Your task to perform on an android device: turn on location history Image 0: 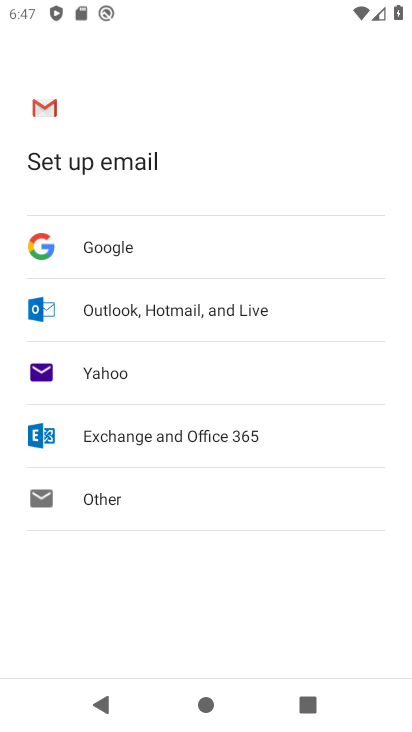
Step 0: press home button
Your task to perform on an android device: turn on location history Image 1: 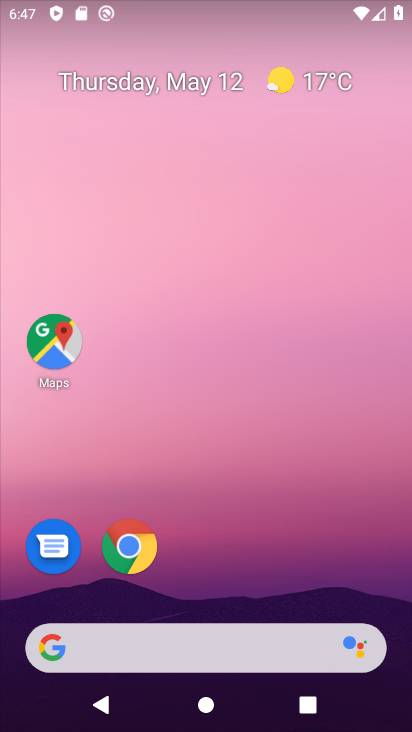
Step 1: click (50, 334)
Your task to perform on an android device: turn on location history Image 2: 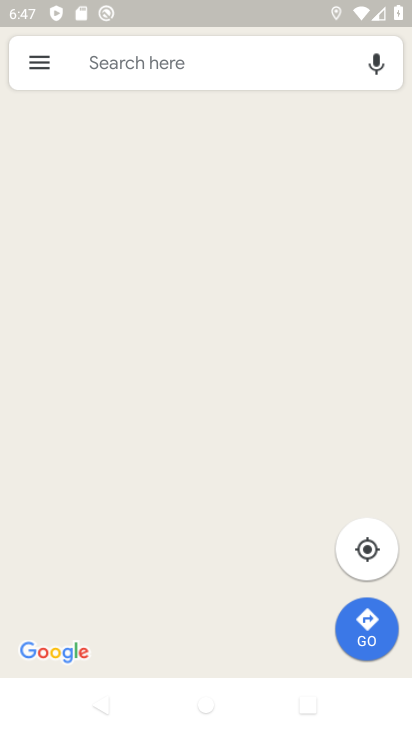
Step 2: click (32, 57)
Your task to perform on an android device: turn on location history Image 3: 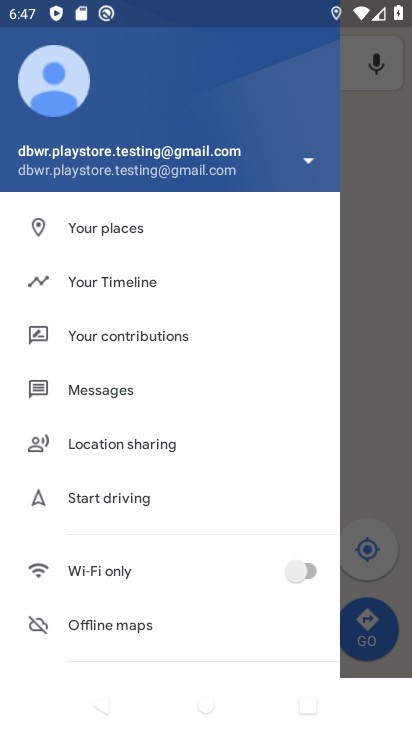
Step 3: click (128, 281)
Your task to perform on an android device: turn on location history Image 4: 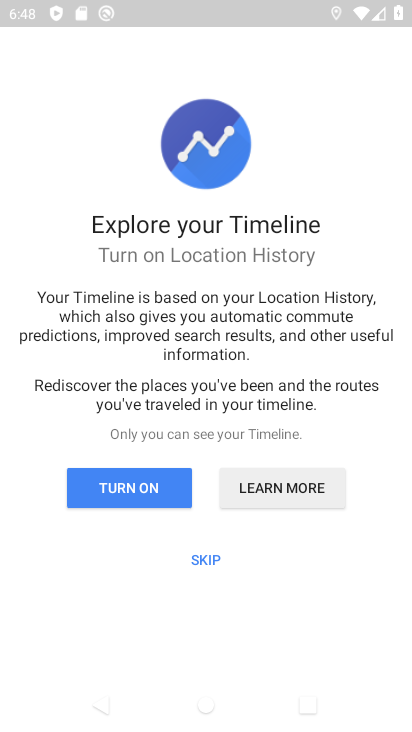
Step 4: click (146, 492)
Your task to perform on an android device: turn on location history Image 5: 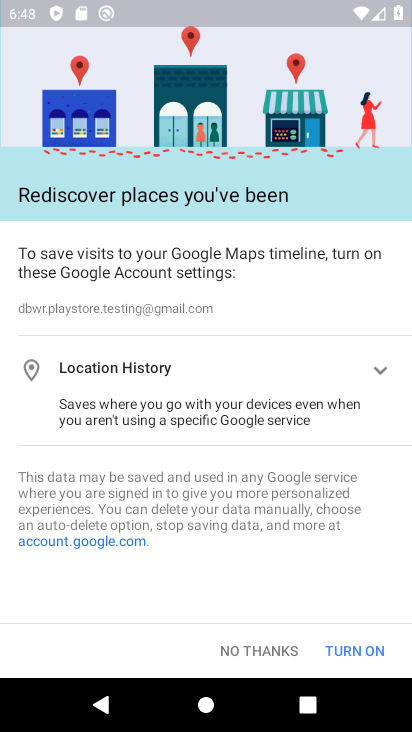
Step 5: click (367, 644)
Your task to perform on an android device: turn on location history Image 6: 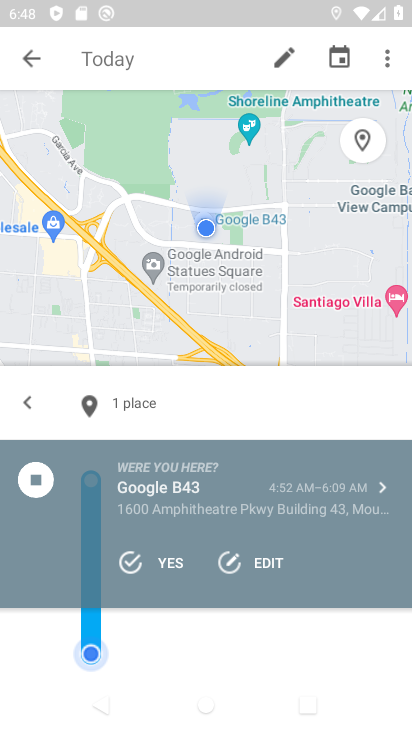
Step 6: task complete